Your task to perform on an android device: turn off wifi Image 0: 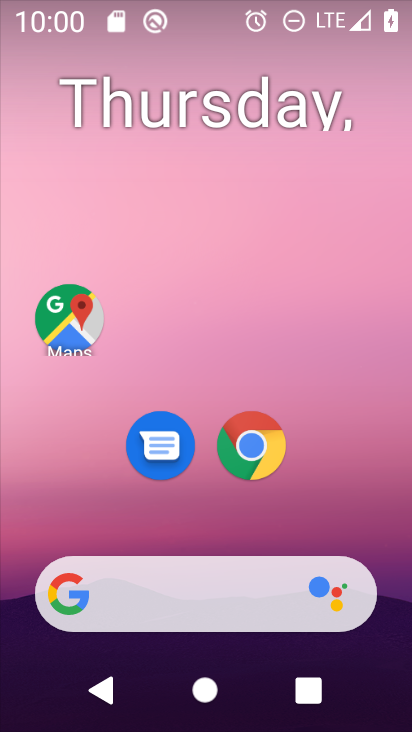
Step 0: drag from (204, 4) to (236, 515)
Your task to perform on an android device: turn off wifi Image 1: 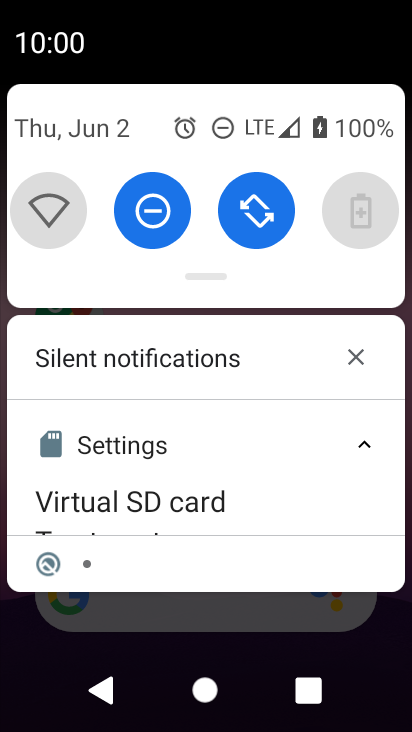
Step 1: task complete